Your task to perform on an android device: Search for a nightstand on IKEA. Image 0: 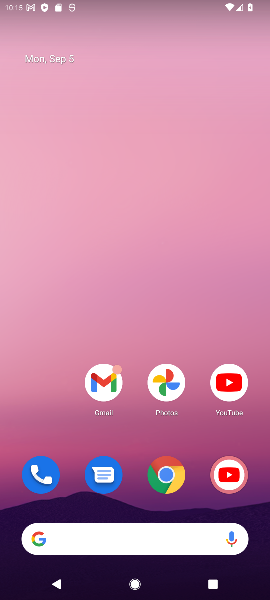
Step 0: click (101, 397)
Your task to perform on an android device: Search for a nightstand on IKEA. Image 1: 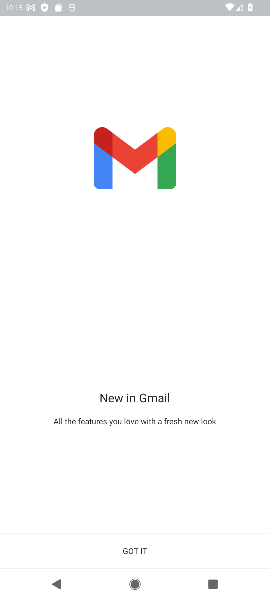
Step 1: click (174, 551)
Your task to perform on an android device: Search for a nightstand on IKEA. Image 2: 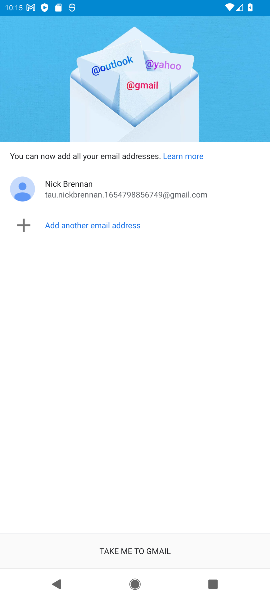
Step 2: click (84, 548)
Your task to perform on an android device: Search for a nightstand on IKEA. Image 3: 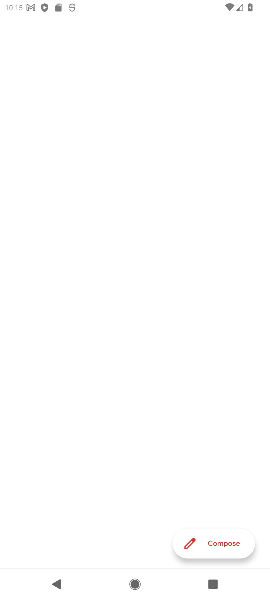
Step 3: task complete